Your task to perform on an android device: empty trash in the gmail app Image 0: 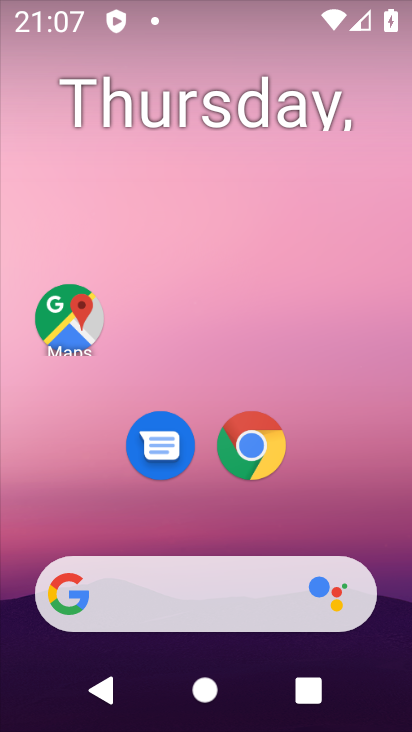
Step 0: drag from (128, 396) to (276, 150)
Your task to perform on an android device: empty trash in the gmail app Image 1: 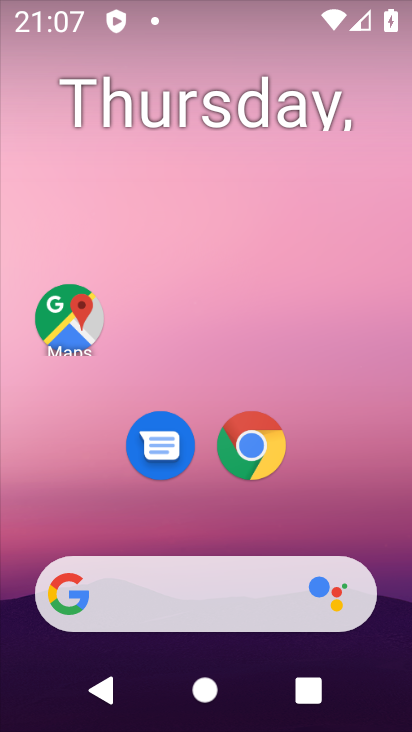
Step 1: drag from (40, 597) to (332, 164)
Your task to perform on an android device: empty trash in the gmail app Image 2: 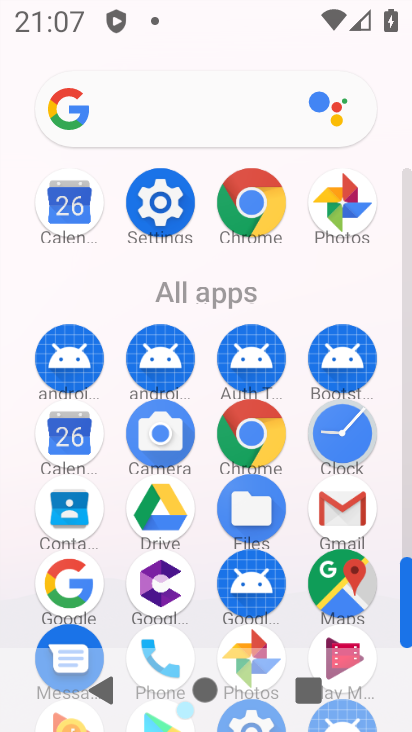
Step 2: click (343, 513)
Your task to perform on an android device: empty trash in the gmail app Image 3: 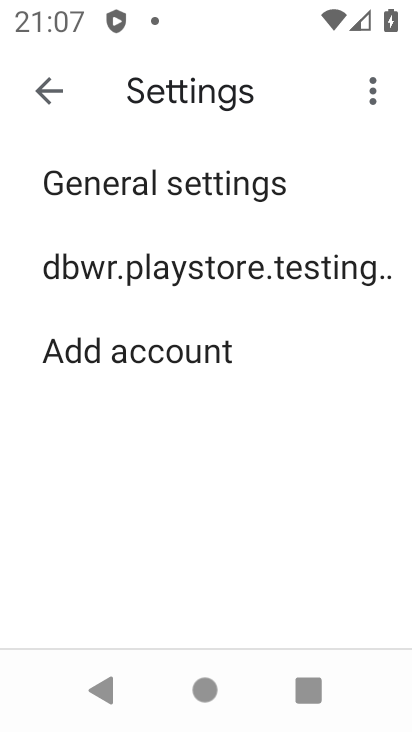
Step 3: click (46, 86)
Your task to perform on an android device: empty trash in the gmail app Image 4: 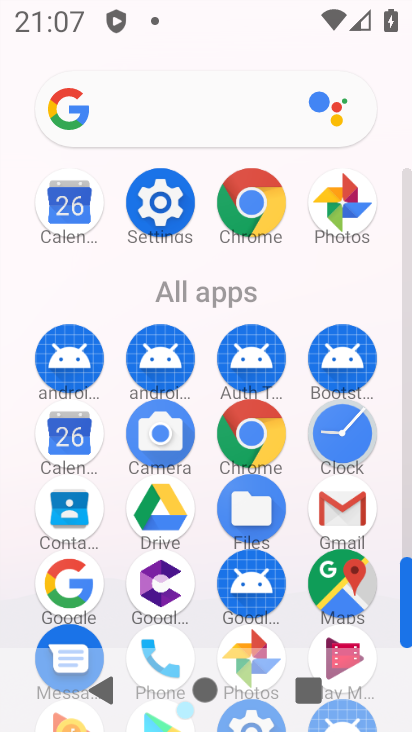
Step 4: click (351, 504)
Your task to perform on an android device: empty trash in the gmail app Image 5: 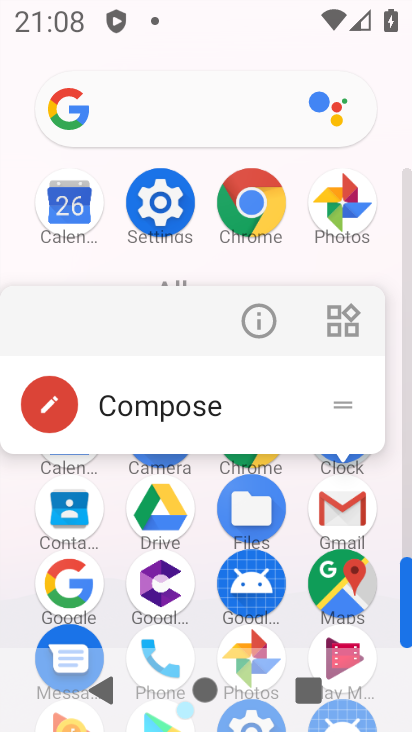
Step 5: click (337, 499)
Your task to perform on an android device: empty trash in the gmail app Image 6: 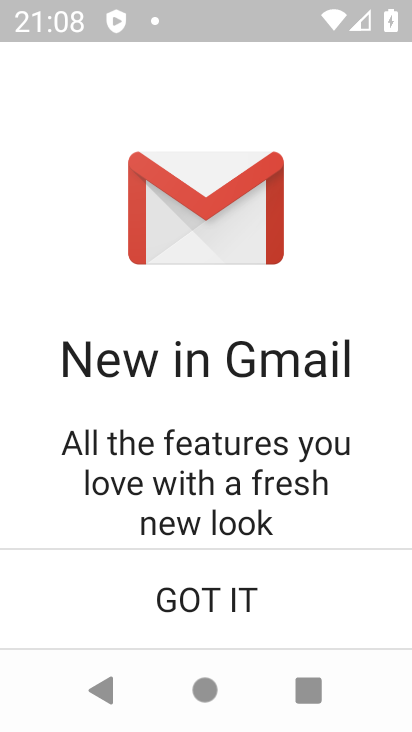
Step 6: click (151, 579)
Your task to perform on an android device: empty trash in the gmail app Image 7: 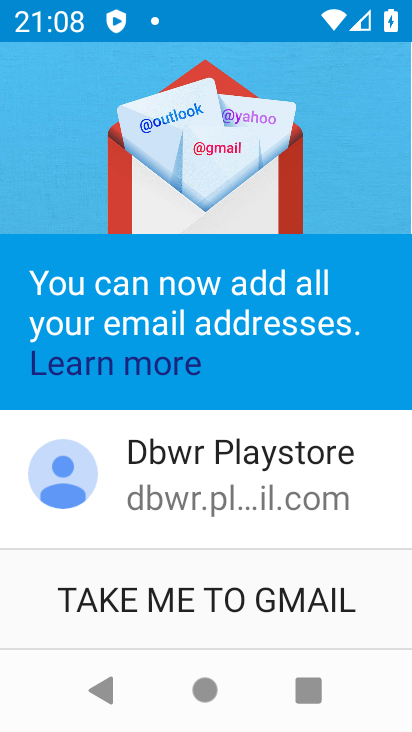
Step 7: click (193, 604)
Your task to perform on an android device: empty trash in the gmail app Image 8: 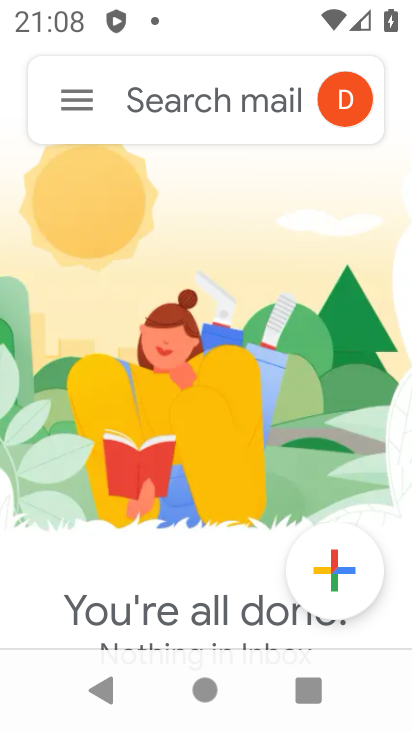
Step 8: click (70, 96)
Your task to perform on an android device: empty trash in the gmail app Image 9: 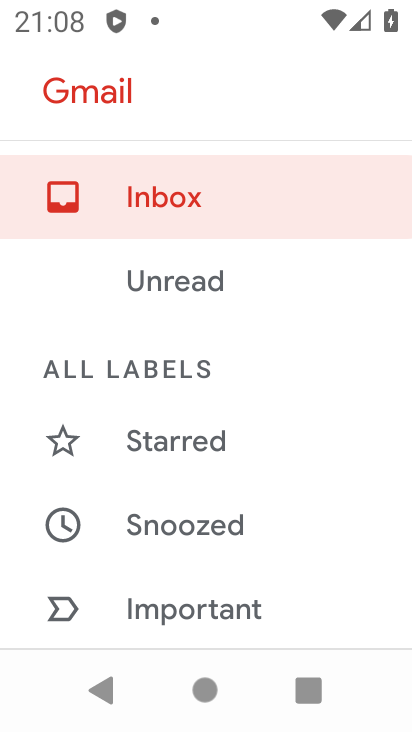
Step 9: drag from (25, 650) to (233, 217)
Your task to perform on an android device: empty trash in the gmail app Image 10: 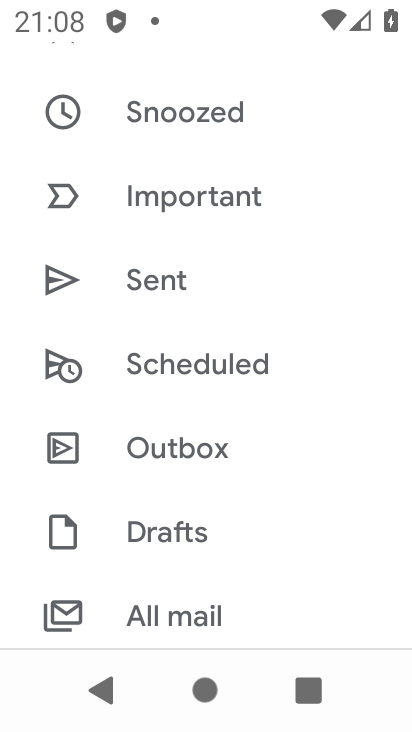
Step 10: drag from (35, 625) to (238, 276)
Your task to perform on an android device: empty trash in the gmail app Image 11: 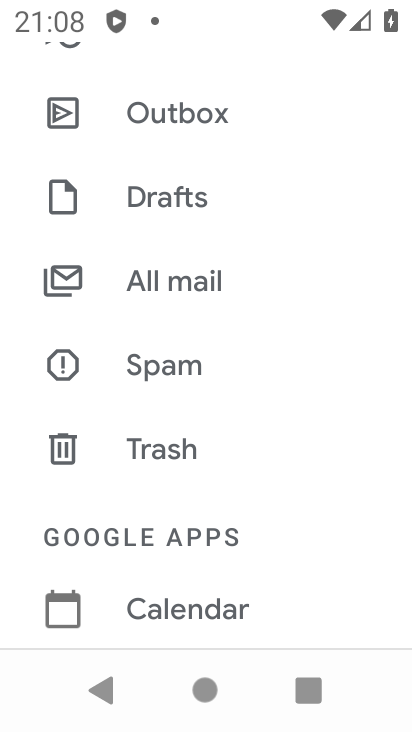
Step 11: click (195, 444)
Your task to perform on an android device: empty trash in the gmail app Image 12: 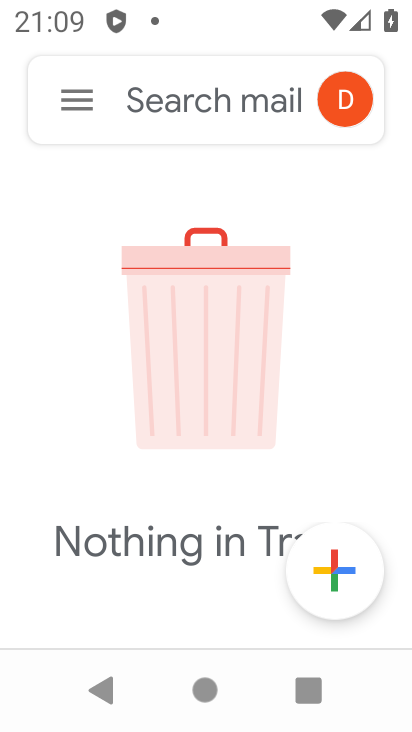
Step 12: task complete